Your task to perform on an android device: Open the web browser Image 0: 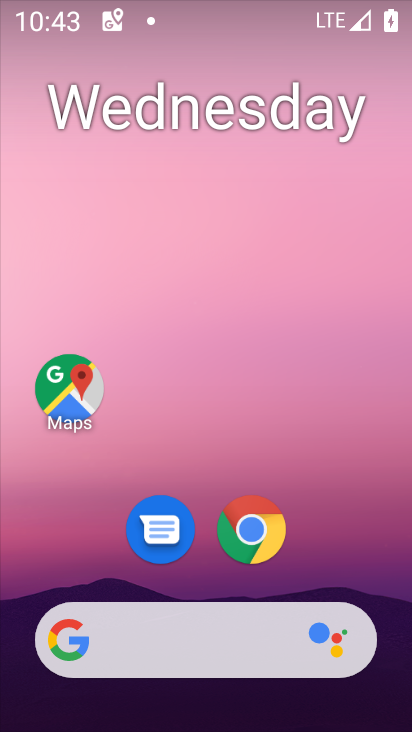
Step 0: click (250, 527)
Your task to perform on an android device: Open the web browser Image 1: 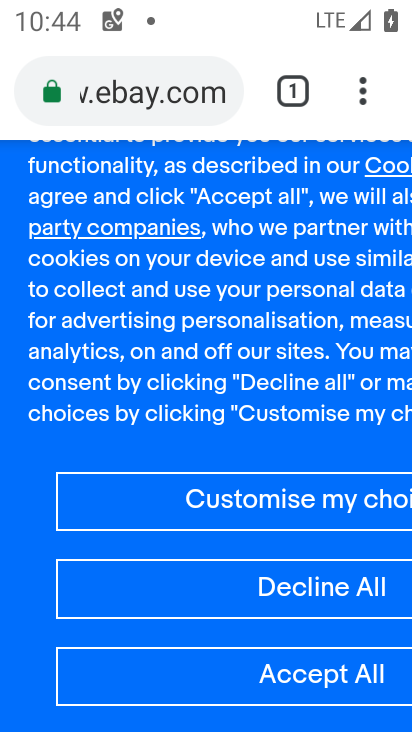
Step 1: task complete